Your task to perform on an android device: open device folders in google photos Image 0: 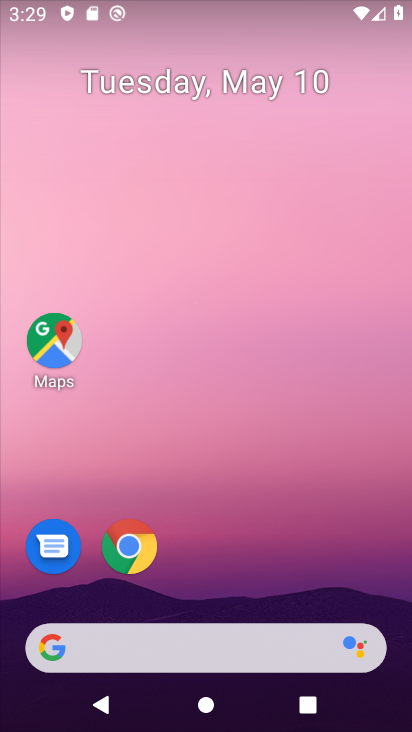
Step 0: drag from (186, 622) to (282, 115)
Your task to perform on an android device: open device folders in google photos Image 1: 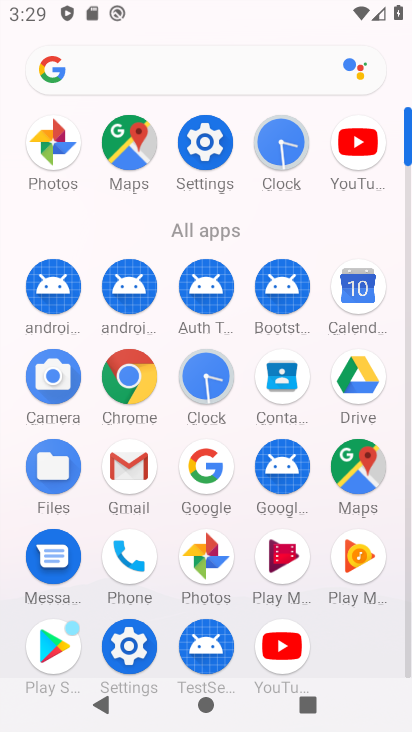
Step 1: click (205, 564)
Your task to perform on an android device: open device folders in google photos Image 2: 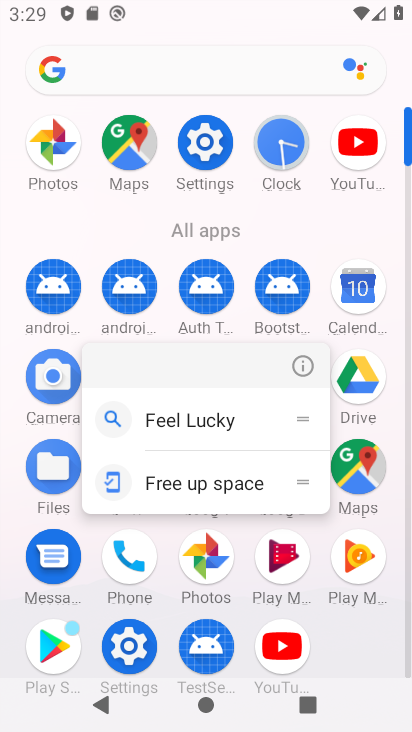
Step 2: click (205, 565)
Your task to perform on an android device: open device folders in google photos Image 3: 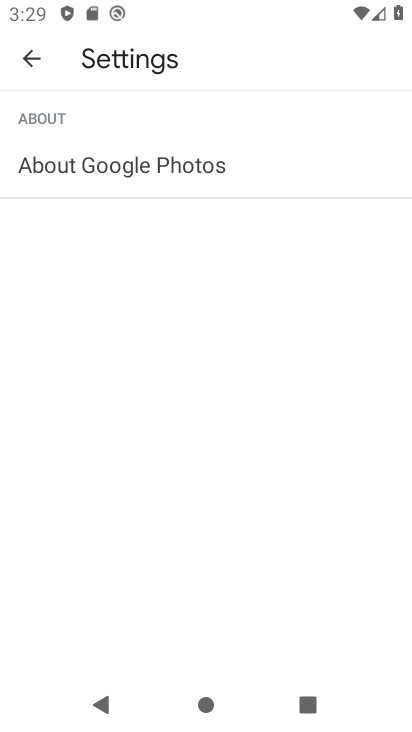
Step 3: click (32, 67)
Your task to perform on an android device: open device folders in google photos Image 4: 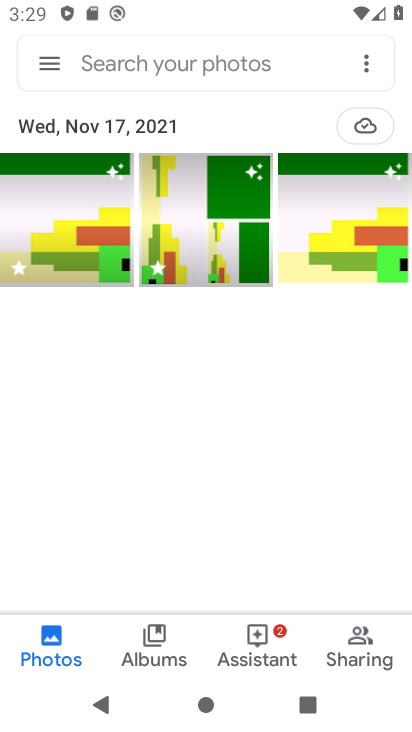
Step 4: click (39, 67)
Your task to perform on an android device: open device folders in google photos Image 5: 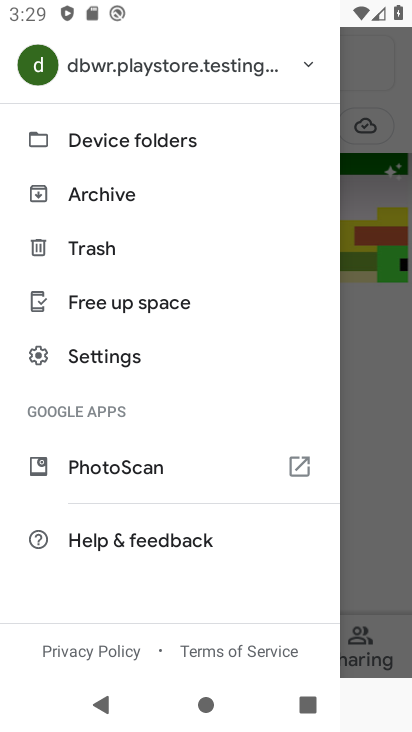
Step 5: click (127, 138)
Your task to perform on an android device: open device folders in google photos Image 6: 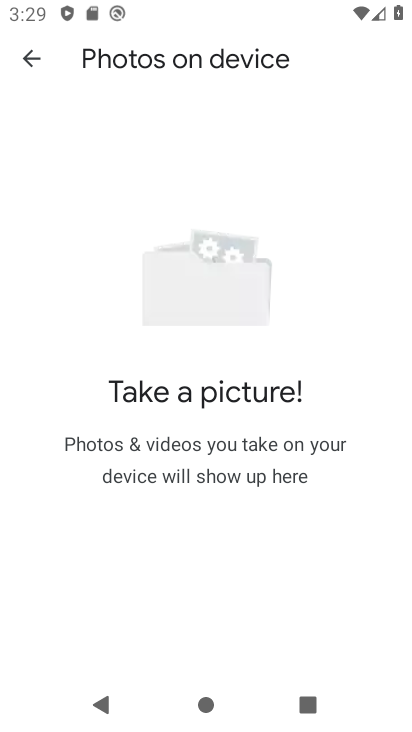
Step 6: task complete